Your task to perform on an android device: Search for seafood restaurants on Google Maps Image 0: 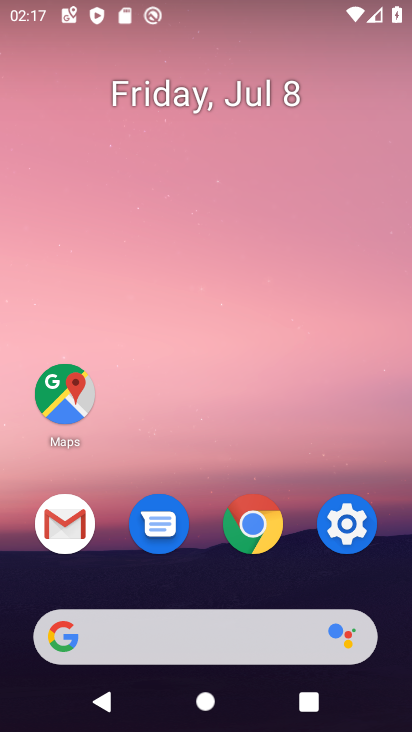
Step 0: click (59, 410)
Your task to perform on an android device: Search for seafood restaurants on Google Maps Image 1: 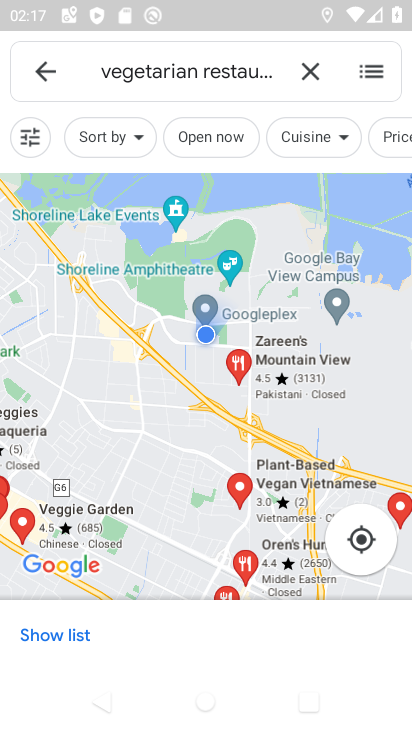
Step 1: click (302, 76)
Your task to perform on an android device: Search for seafood restaurants on Google Maps Image 2: 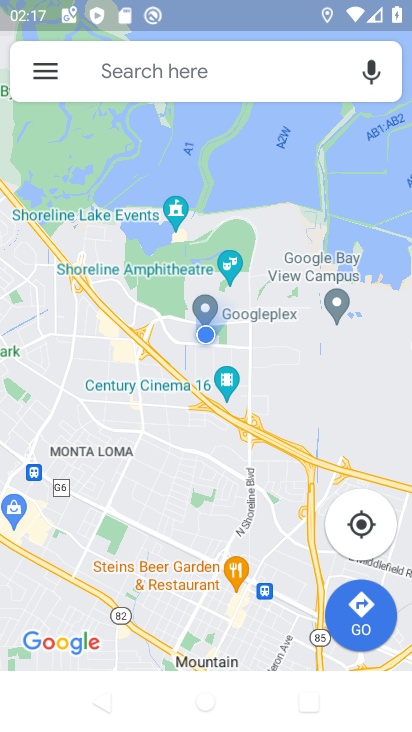
Step 2: click (239, 96)
Your task to perform on an android device: Search for seafood restaurants on Google Maps Image 3: 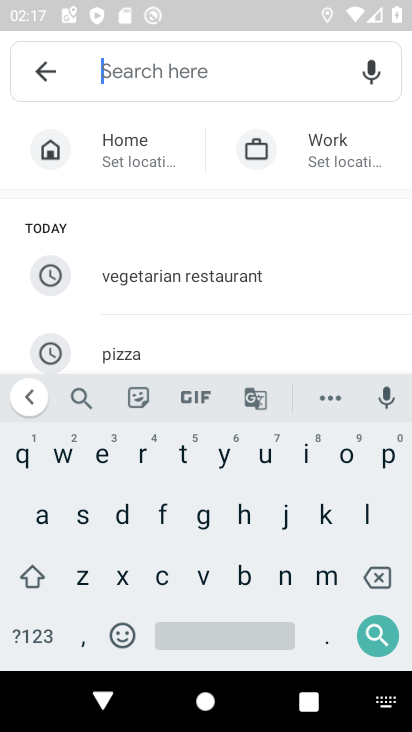
Step 3: click (80, 511)
Your task to perform on an android device: Search for seafood restaurants on Google Maps Image 4: 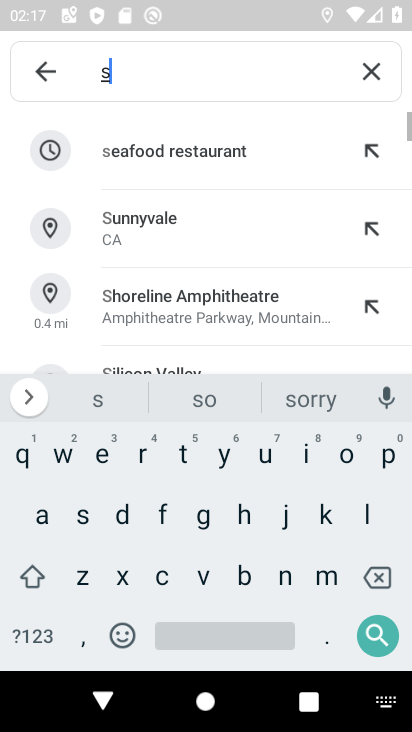
Step 4: click (105, 454)
Your task to perform on an android device: Search for seafood restaurants on Google Maps Image 5: 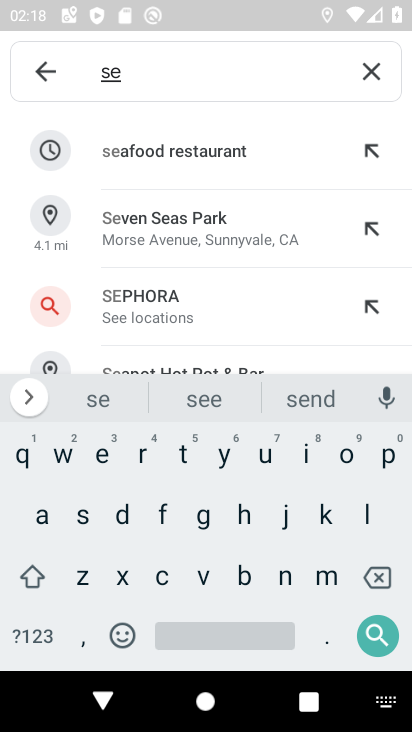
Step 5: click (197, 155)
Your task to perform on an android device: Search for seafood restaurants on Google Maps Image 6: 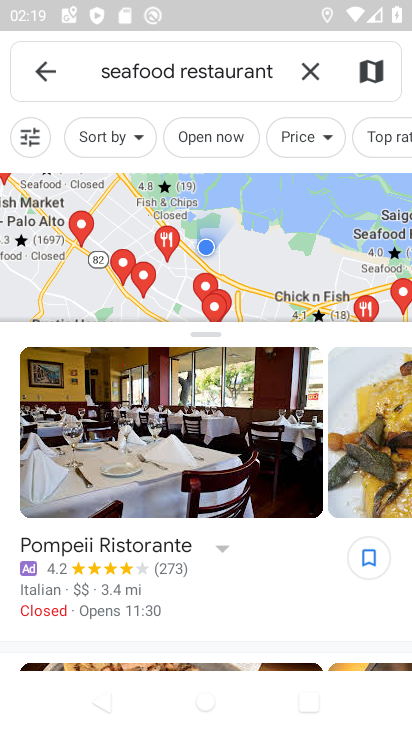
Step 6: task complete